Your task to perform on an android device: change text size in settings app Image 0: 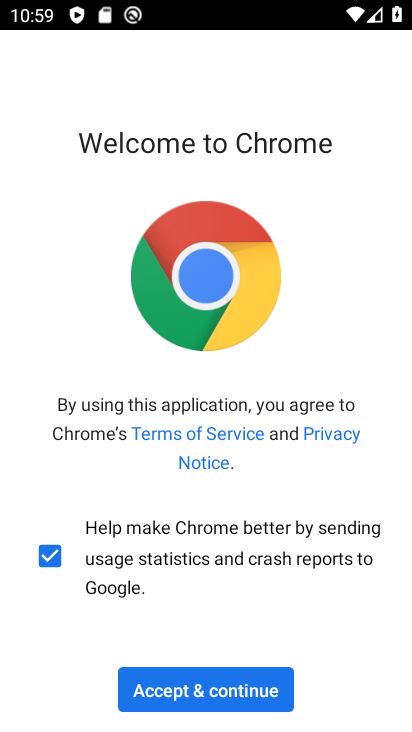
Step 0: press home button
Your task to perform on an android device: change text size in settings app Image 1: 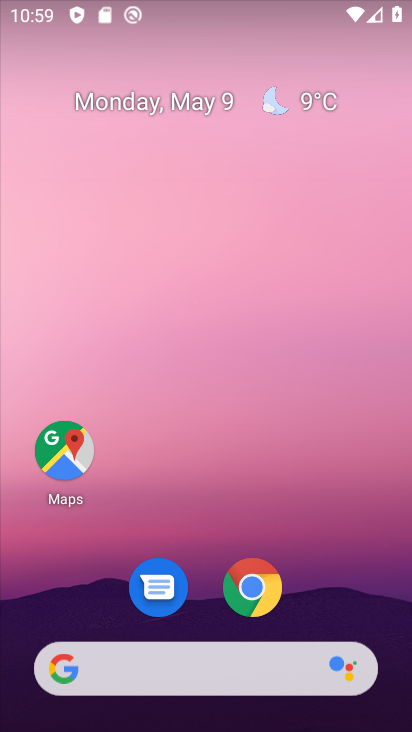
Step 1: drag from (210, 533) to (240, 0)
Your task to perform on an android device: change text size in settings app Image 2: 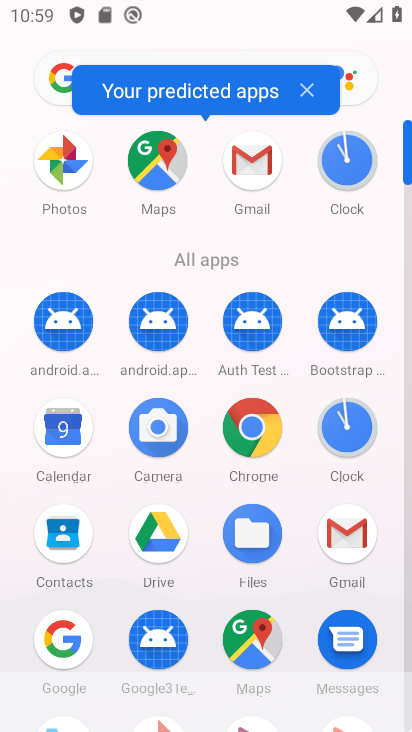
Step 2: drag from (191, 558) to (251, 177)
Your task to perform on an android device: change text size in settings app Image 3: 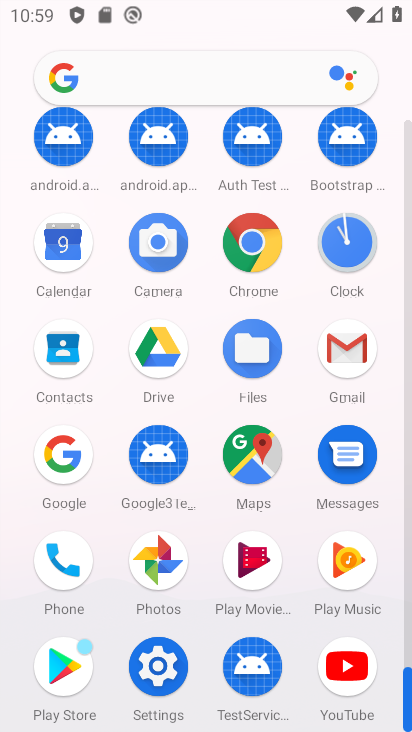
Step 3: click (158, 666)
Your task to perform on an android device: change text size in settings app Image 4: 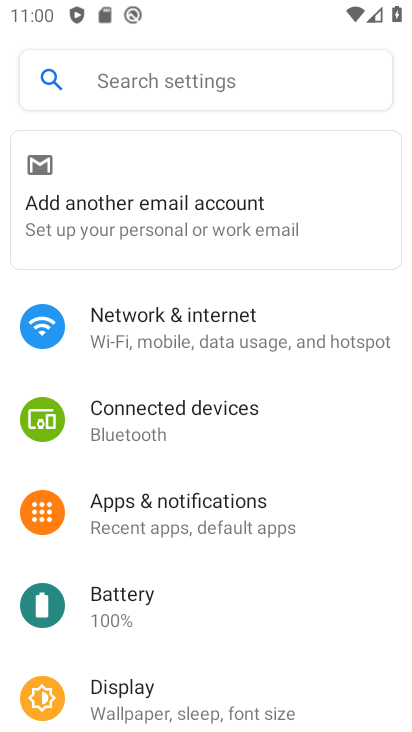
Step 4: drag from (204, 524) to (218, 327)
Your task to perform on an android device: change text size in settings app Image 5: 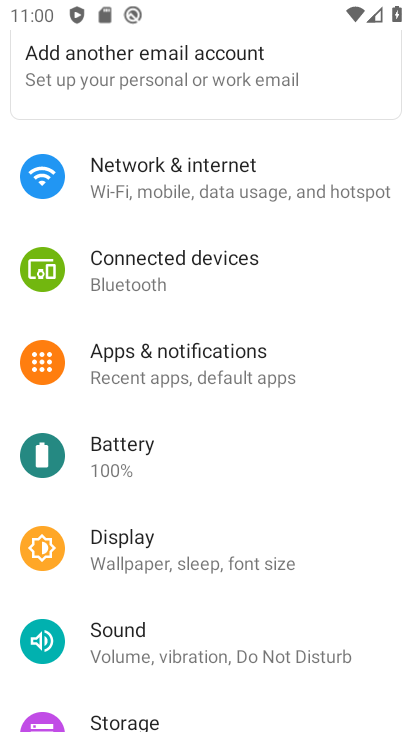
Step 5: click (153, 562)
Your task to perform on an android device: change text size in settings app Image 6: 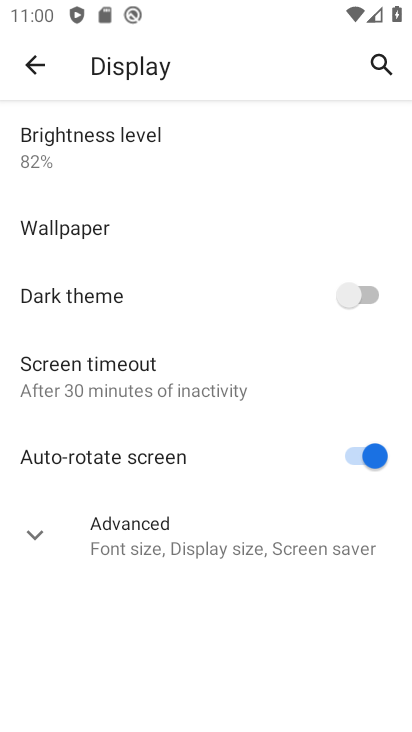
Step 6: click (184, 542)
Your task to perform on an android device: change text size in settings app Image 7: 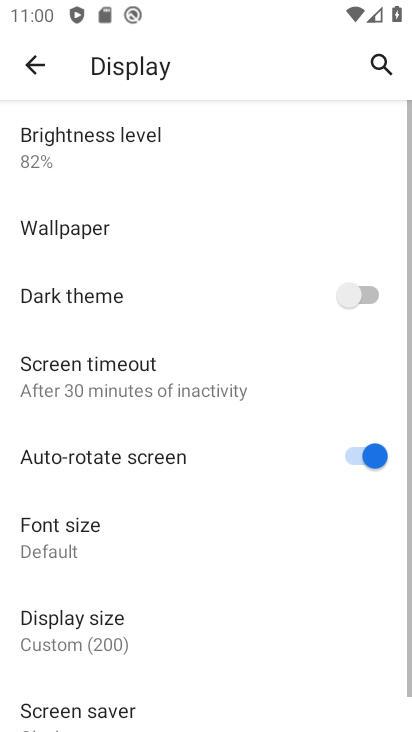
Step 7: click (68, 555)
Your task to perform on an android device: change text size in settings app Image 8: 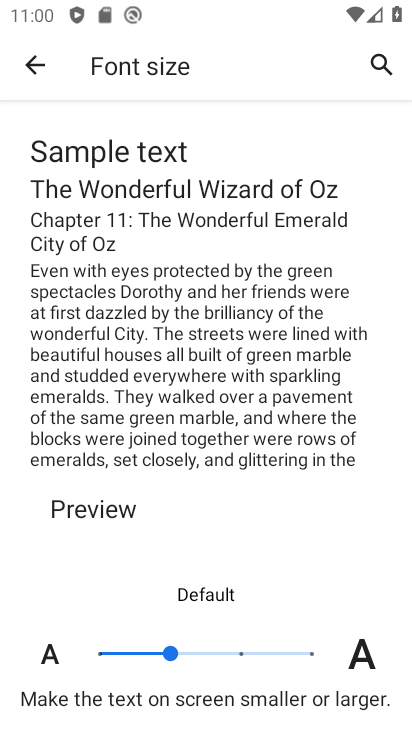
Step 8: click (243, 650)
Your task to perform on an android device: change text size in settings app Image 9: 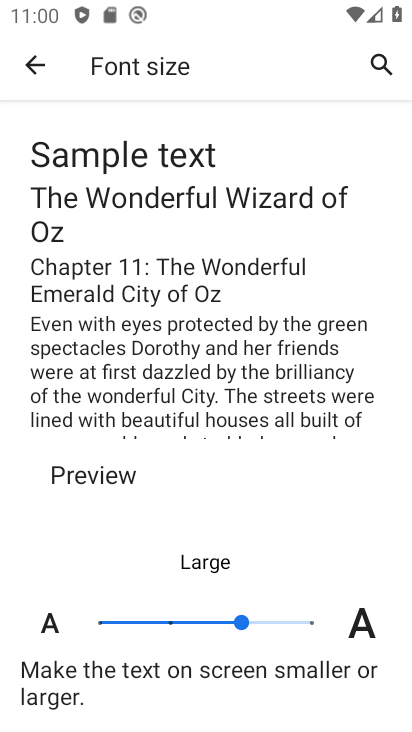
Step 9: task complete